Your task to perform on an android device: install app "Airtel Thanks" Image 0: 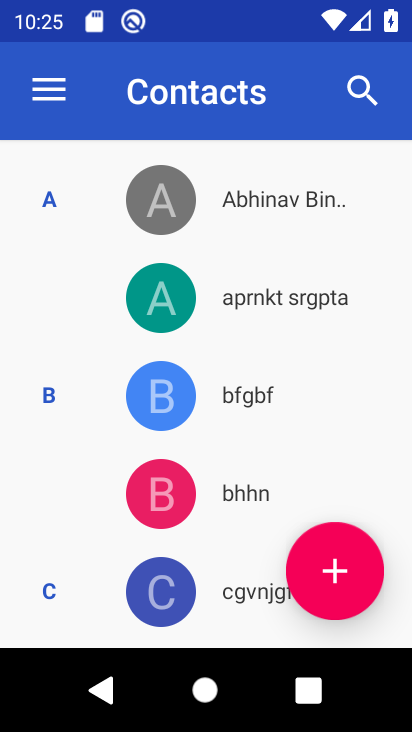
Step 0: press home button
Your task to perform on an android device: install app "Airtel Thanks" Image 1: 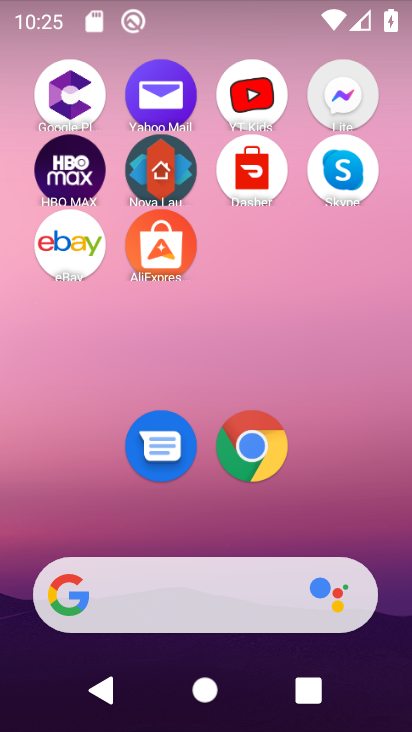
Step 1: drag from (246, 526) to (192, 178)
Your task to perform on an android device: install app "Airtel Thanks" Image 2: 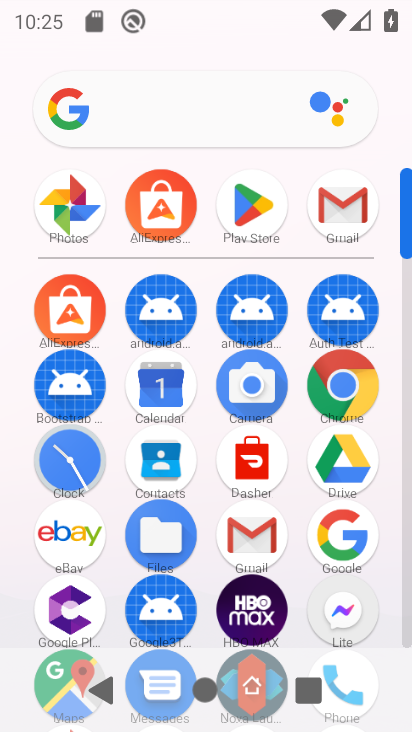
Step 2: click (235, 216)
Your task to perform on an android device: install app "Airtel Thanks" Image 3: 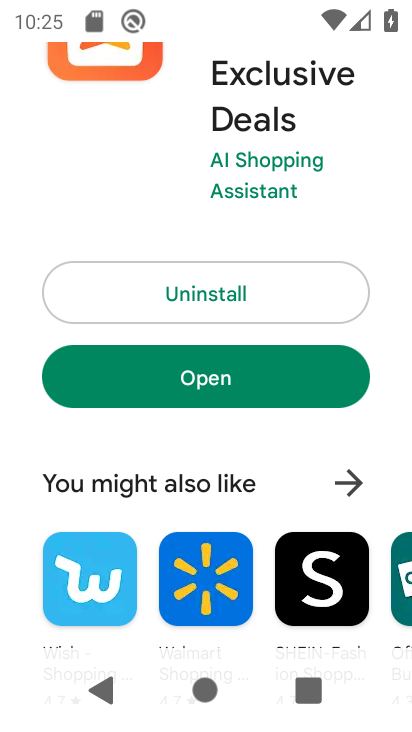
Step 3: drag from (265, 147) to (290, 496)
Your task to perform on an android device: install app "Airtel Thanks" Image 4: 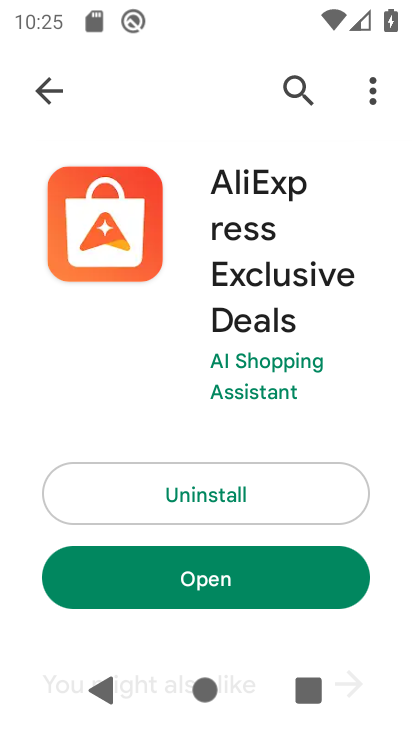
Step 4: click (286, 75)
Your task to perform on an android device: install app "Airtel Thanks" Image 5: 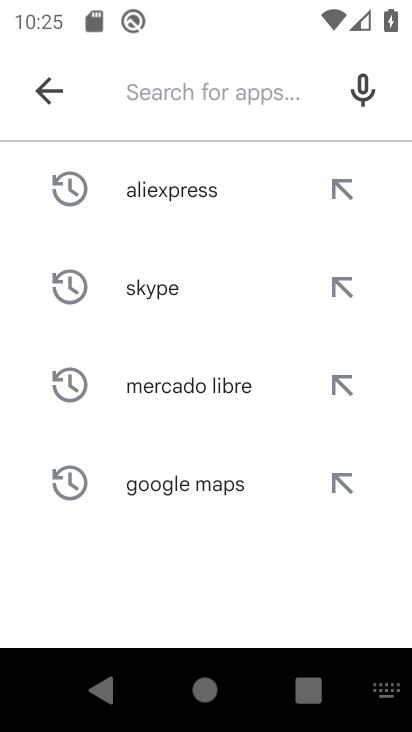
Step 5: type "Airtel Thanks"
Your task to perform on an android device: install app "Airtel Thanks" Image 6: 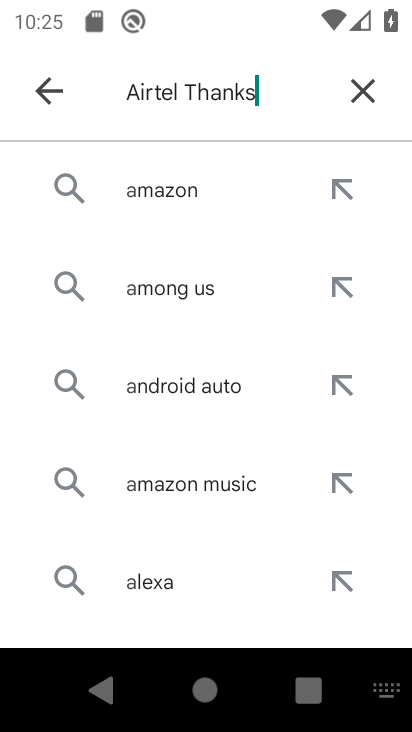
Step 6: type ""
Your task to perform on an android device: install app "Airtel Thanks" Image 7: 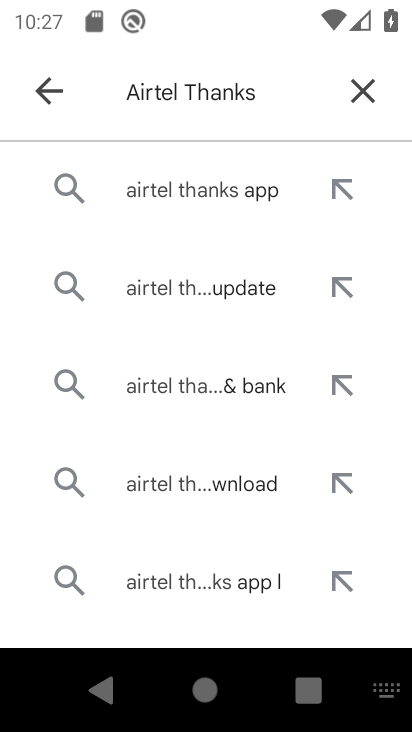
Step 7: click (235, 189)
Your task to perform on an android device: install app "Airtel Thanks" Image 8: 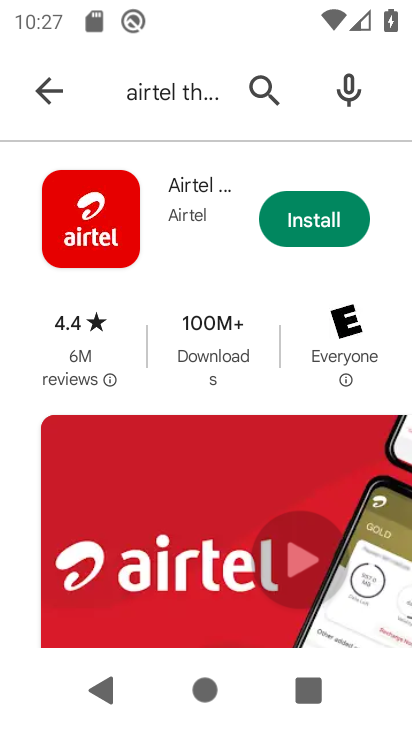
Step 8: click (292, 221)
Your task to perform on an android device: install app "Airtel Thanks" Image 9: 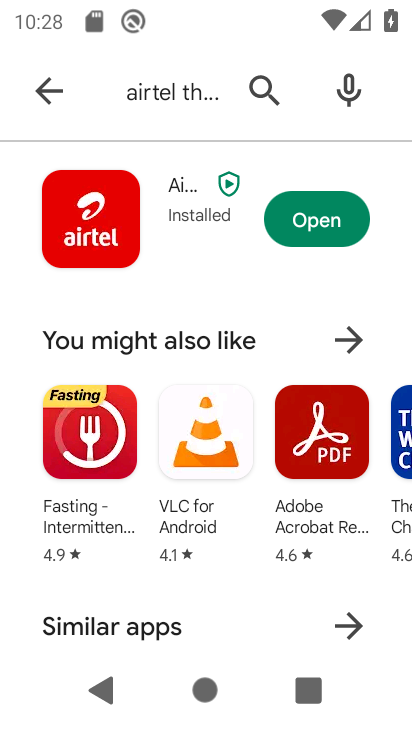
Step 9: task complete